Your task to perform on an android device: uninstall "Airtel Thanks" Image 0: 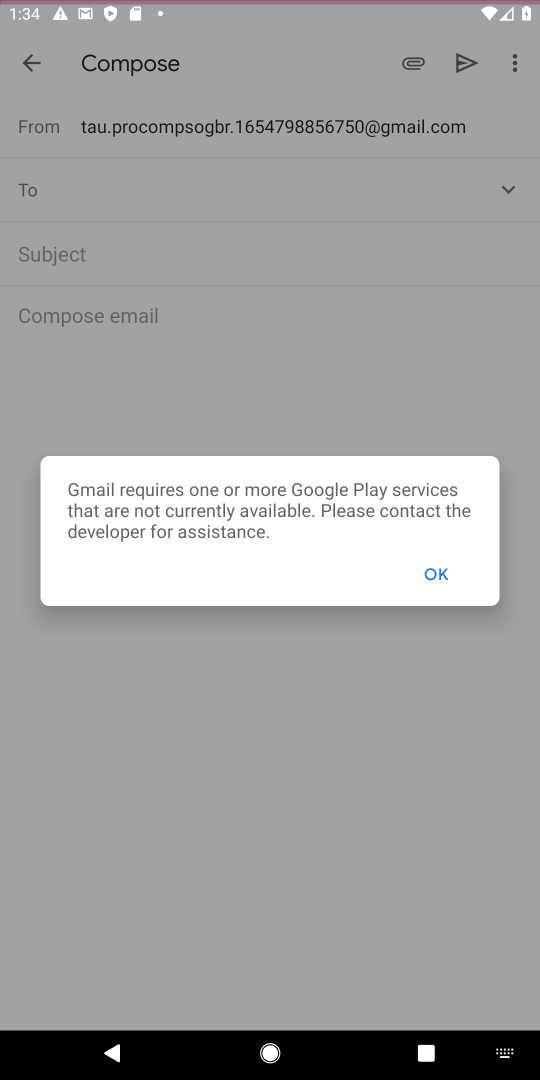
Step 0: press home button
Your task to perform on an android device: uninstall "Airtel Thanks" Image 1: 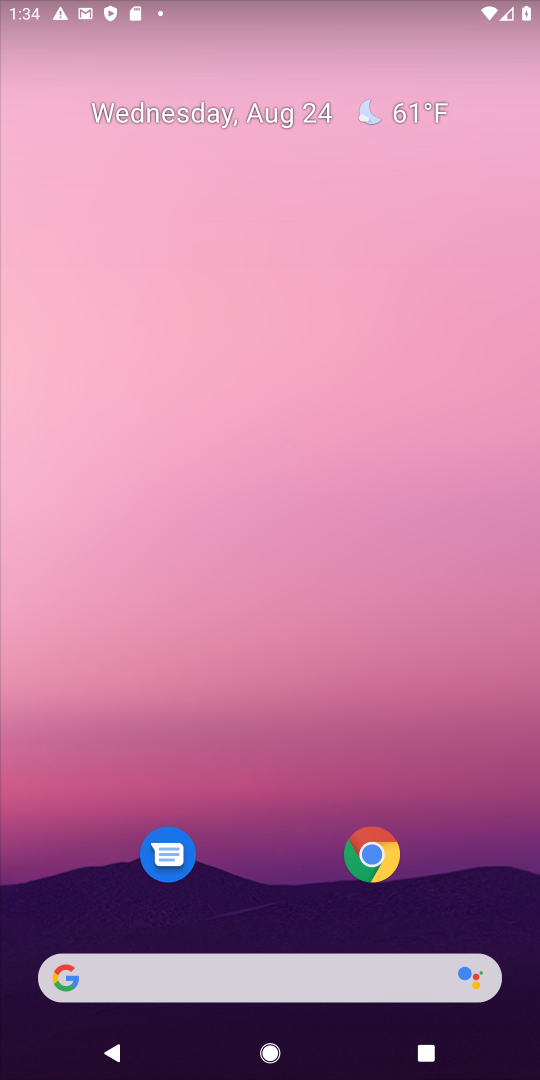
Step 1: drag from (448, 772) to (450, 113)
Your task to perform on an android device: uninstall "Airtel Thanks" Image 2: 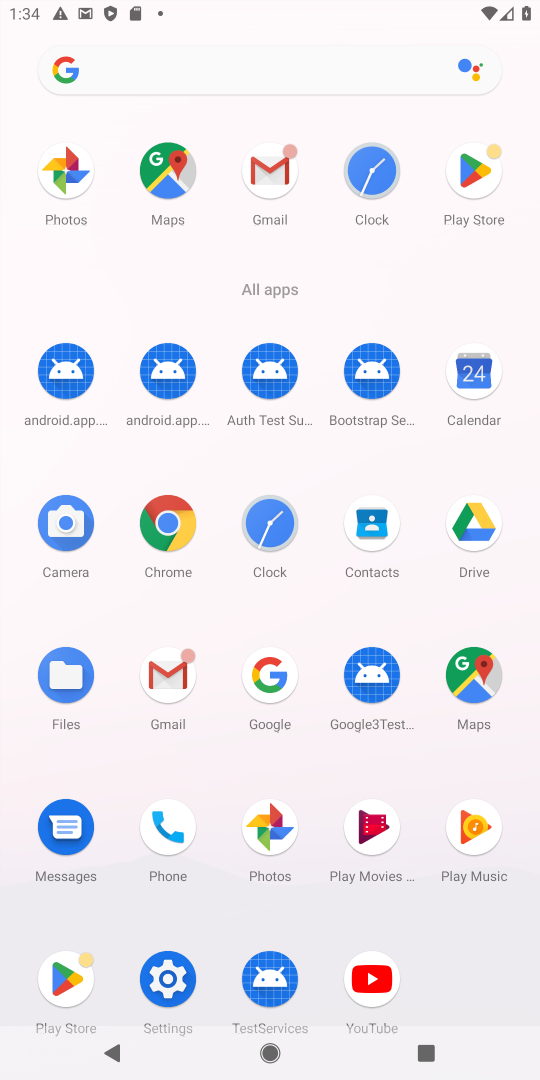
Step 2: click (478, 180)
Your task to perform on an android device: uninstall "Airtel Thanks" Image 3: 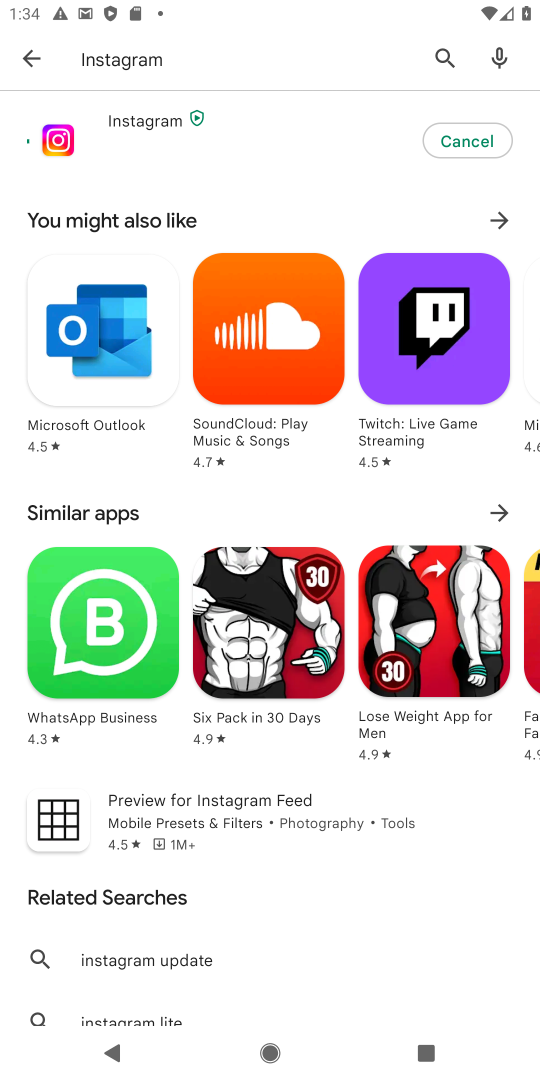
Step 3: press back button
Your task to perform on an android device: uninstall "Airtel Thanks" Image 4: 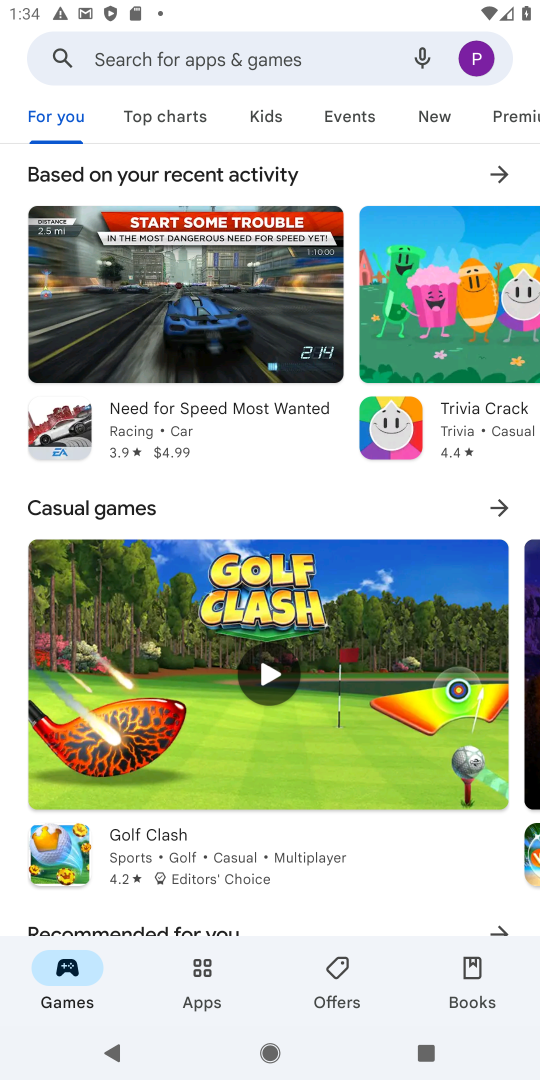
Step 4: click (300, 63)
Your task to perform on an android device: uninstall "Airtel Thanks" Image 5: 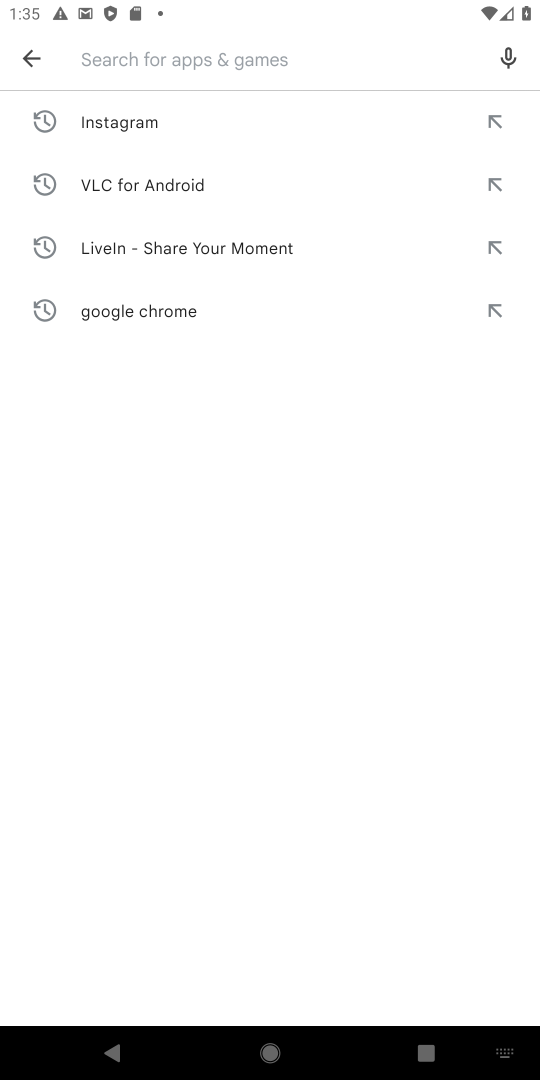
Step 5: press enter
Your task to perform on an android device: uninstall "Airtel Thanks" Image 6: 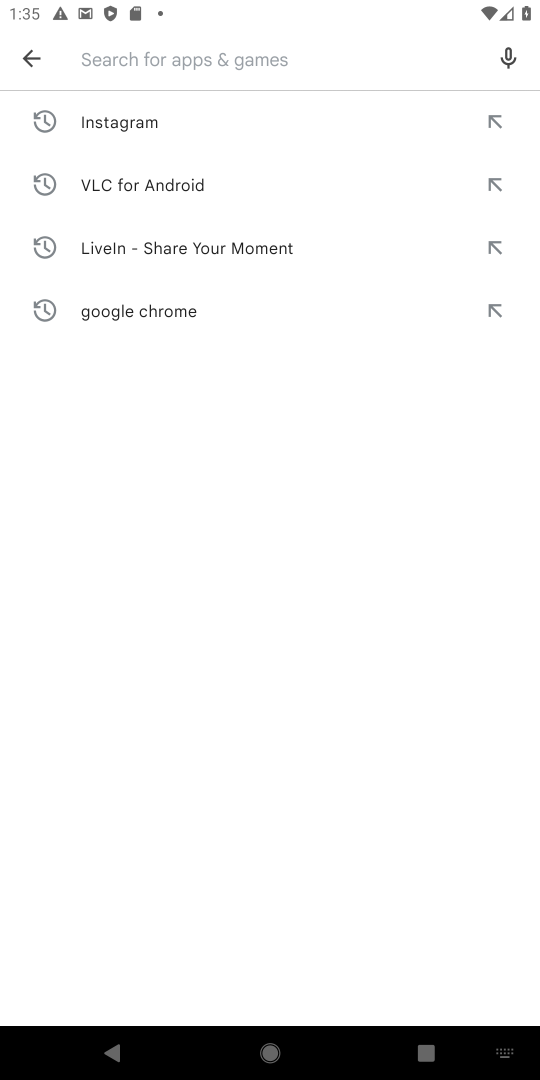
Step 6: type "Airtel Thanks"
Your task to perform on an android device: uninstall "Airtel Thanks" Image 7: 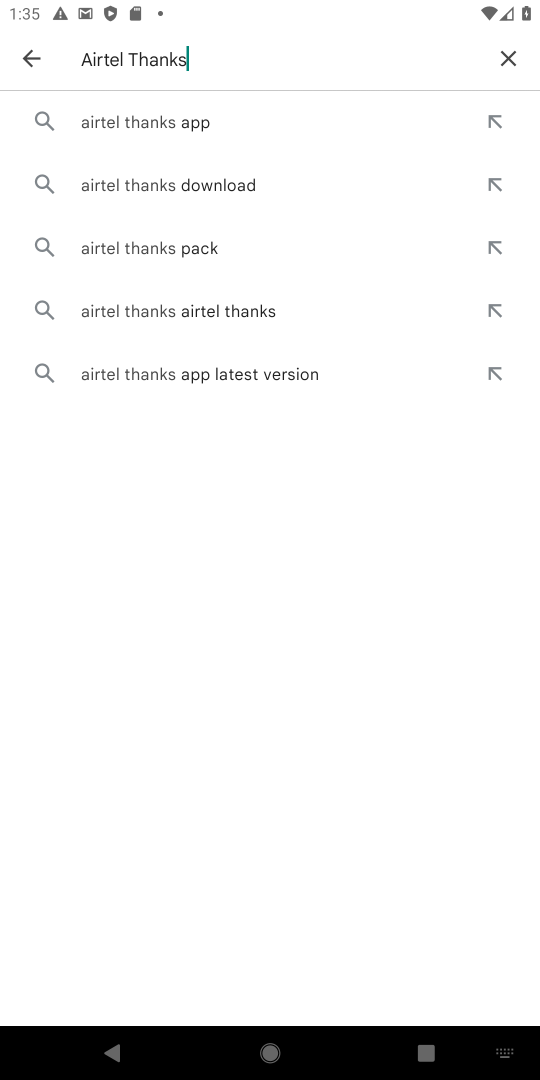
Step 7: click (199, 124)
Your task to perform on an android device: uninstall "Airtel Thanks" Image 8: 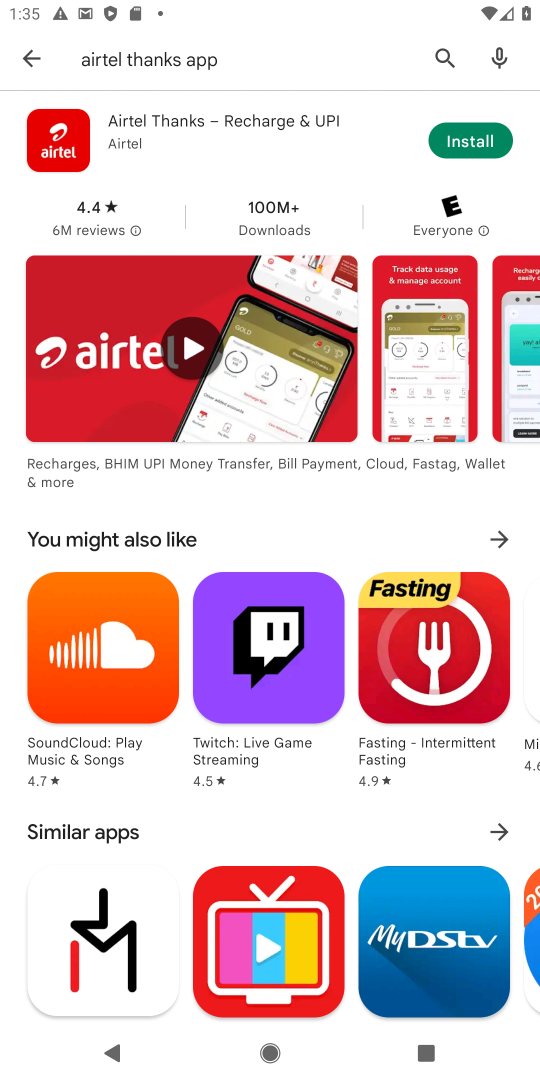
Step 8: task complete